Your task to perform on an android device: Go to Amazon Image 0: 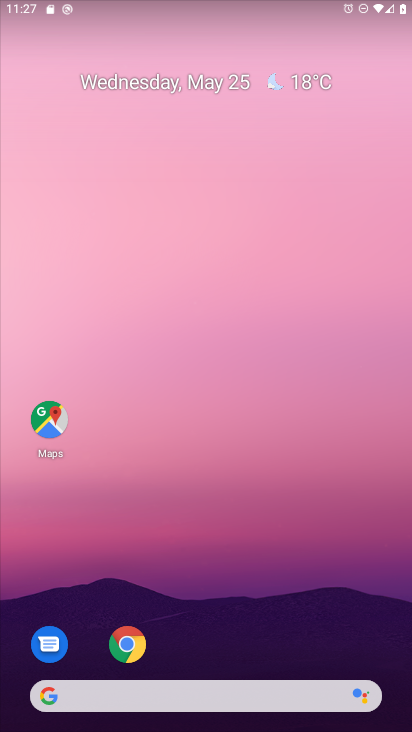
Step 0: press home button
Your task to perform on an android device: Go to Amazon Image 1: 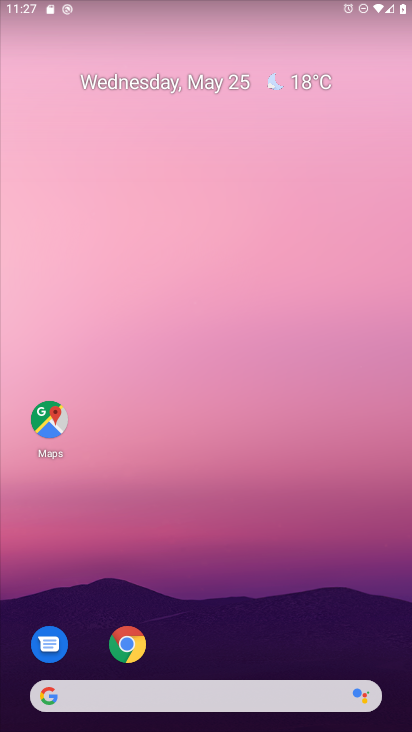
Step 1: click (125, 639)
Your task to perform on an android device: Go to Amazon Image 2: 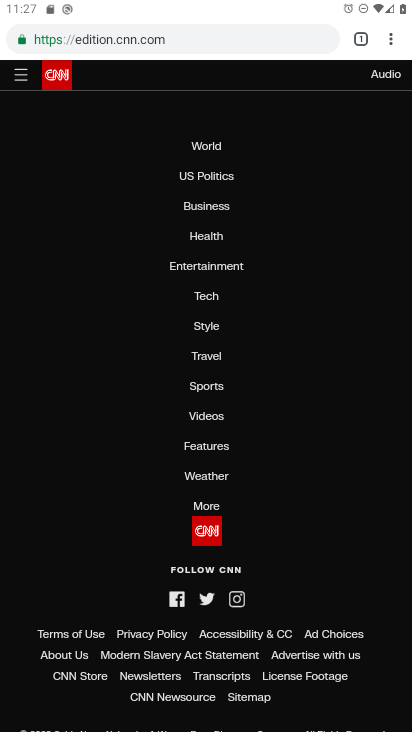
Step 2: click (360, 34)
Your task to perform on an android device: Go to Amazon Image 3: 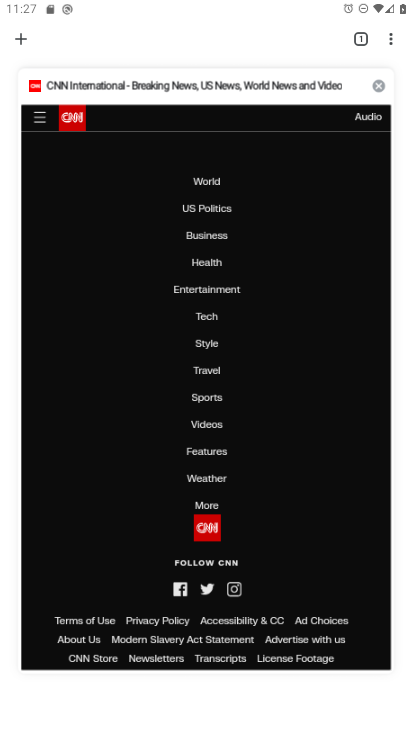
Step 3: click (377, 82)
Your task to perform on an android device: Go to Amazon Image 4: 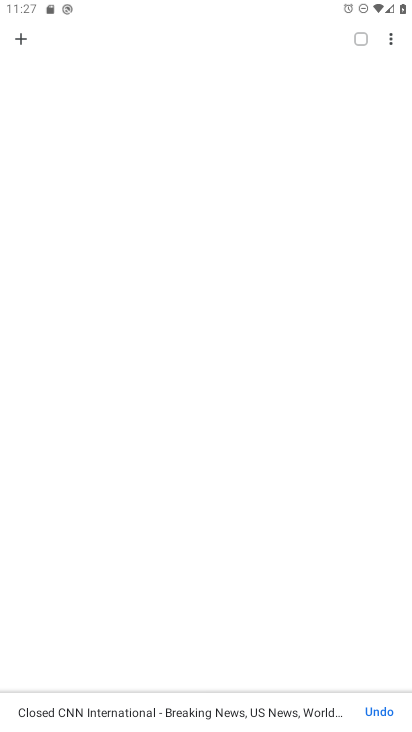
Step 4: click (22, 40)
Your task to perform on an android device: Go to Amazon Image 5: 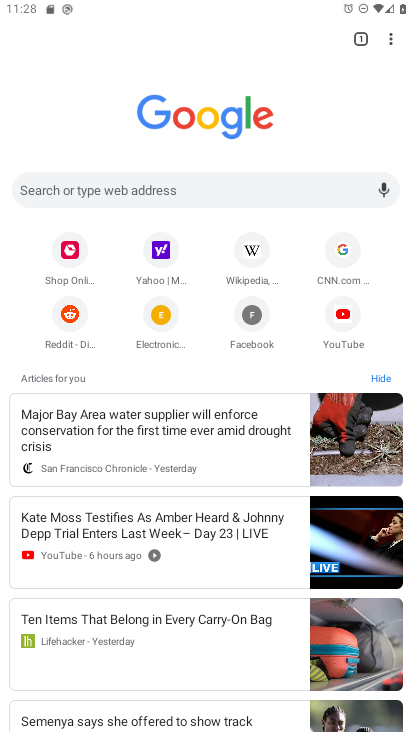
Step 5: click (132, 186)
Your task to perform on an android device: Go to Amazon Image 6: 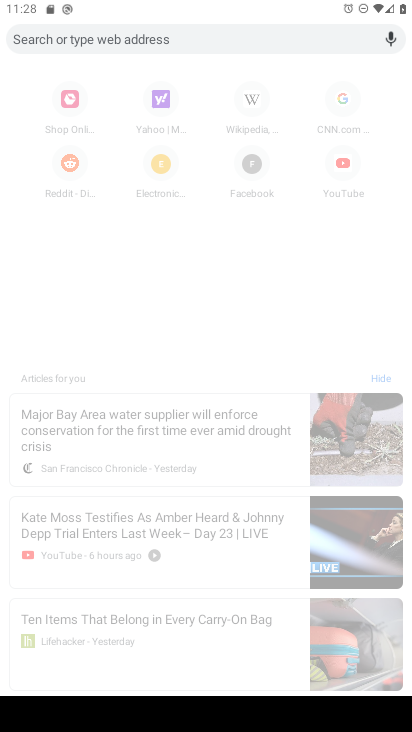
Step 6: type "amazon"
Your task to perform on an android device: Go to Amazon Image 7: 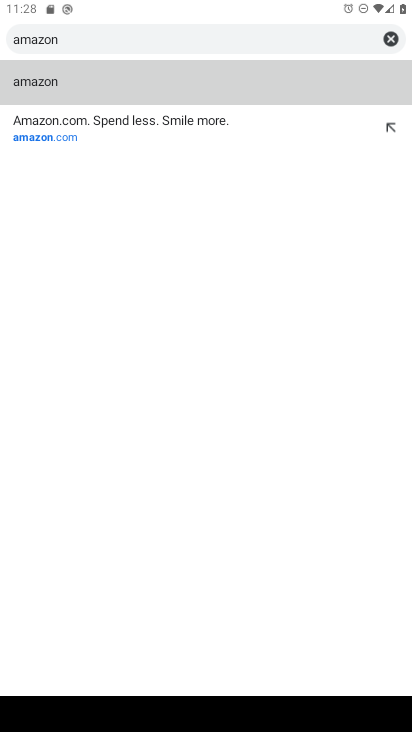
Step 7: click (154, 138)
Your task to perform on an android device: Go to Amazon Image 8: 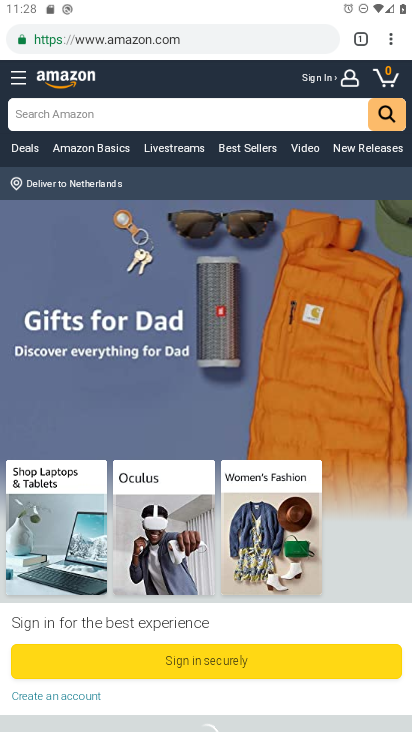
Step 8: task complete